Your task to perform on an android device: See recent photos Image 0: 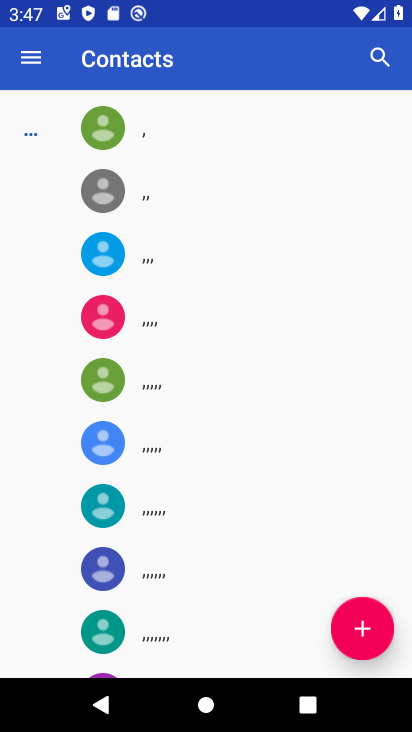
Step 0: press home button
Your task to perform on an android device: See recent photos Image 1: 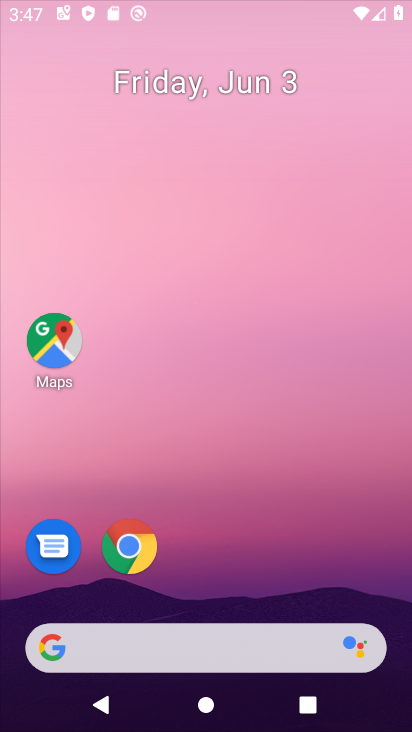
Step 1: drag from (274, 529) to (289, 31)
Your task to perform on an android device: See recent photos Image 2: 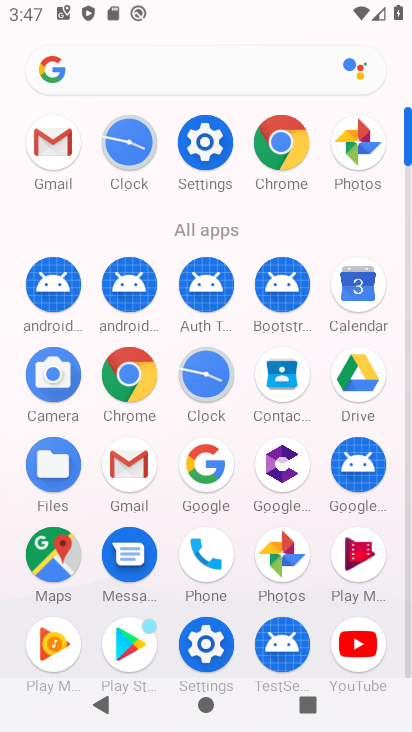
Step 2: click (364, 141)
Your task to perform on an android device: See recent photos Image 3: 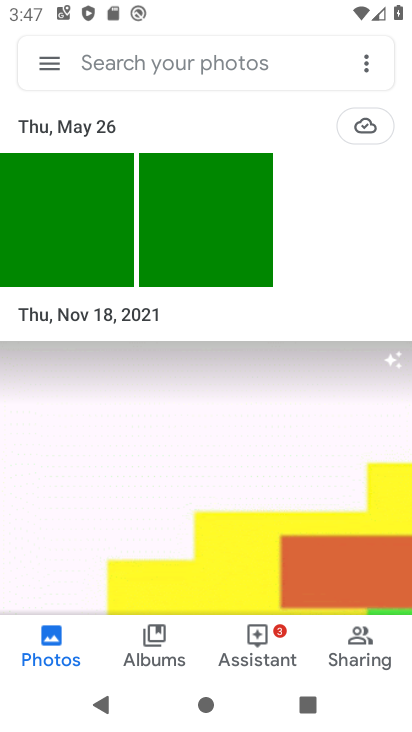
Step 3: task complete